Your task to perform on an android device: Open maps Image 0: 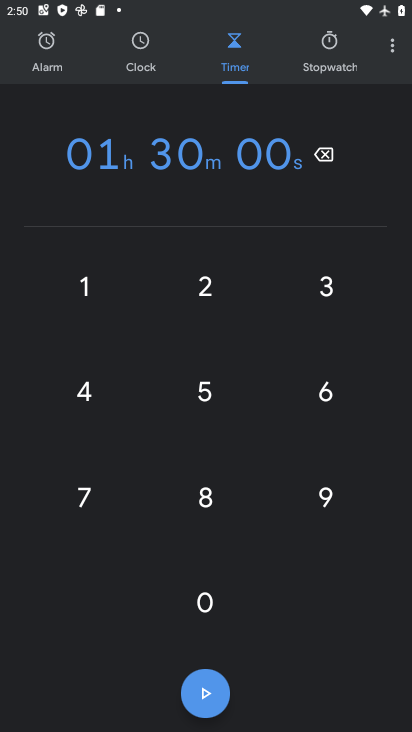
Step 0: press home button
Your task to perform on an android device: Open maps Image 1: 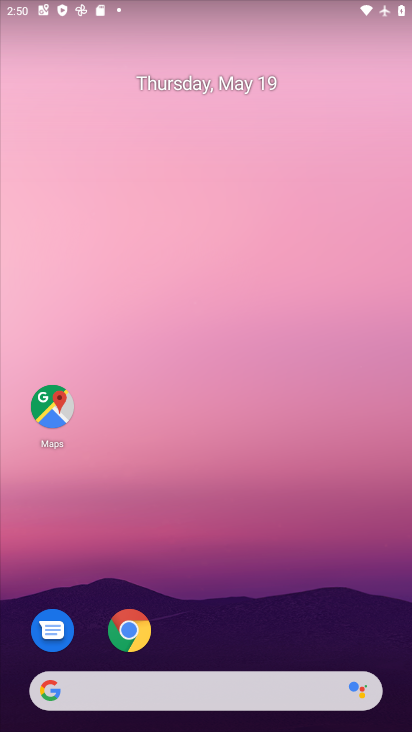
Step 1: click (51, 400)
Your task to perform on an android device: Open maps Image 2: 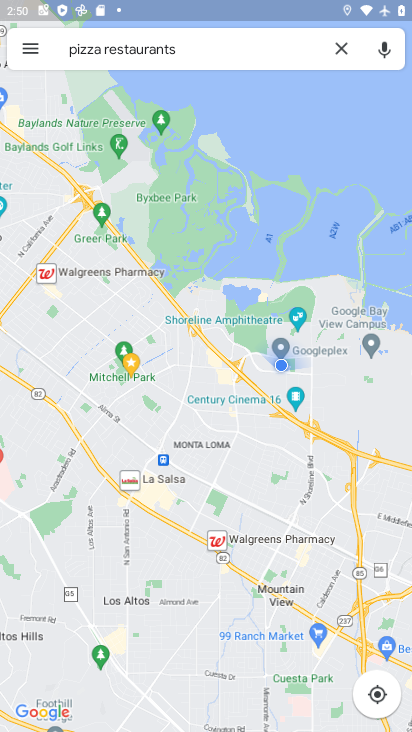
Step 2: click (339, 44)
Your task to perform on an android device: Open maps Image 3: 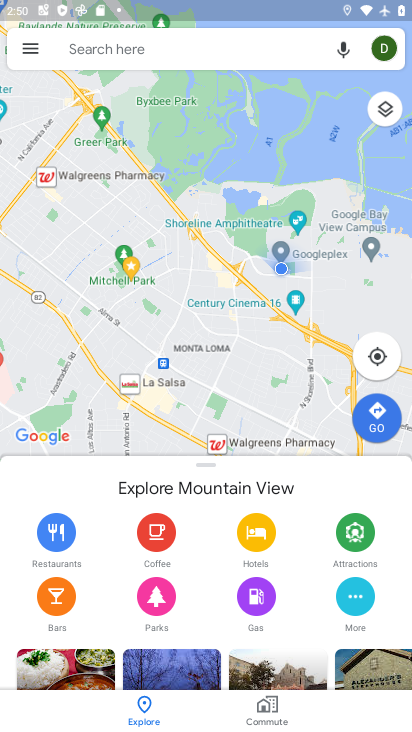
Step 3: task complete